Your task to perform on an android device: Open notification settings Image 0: 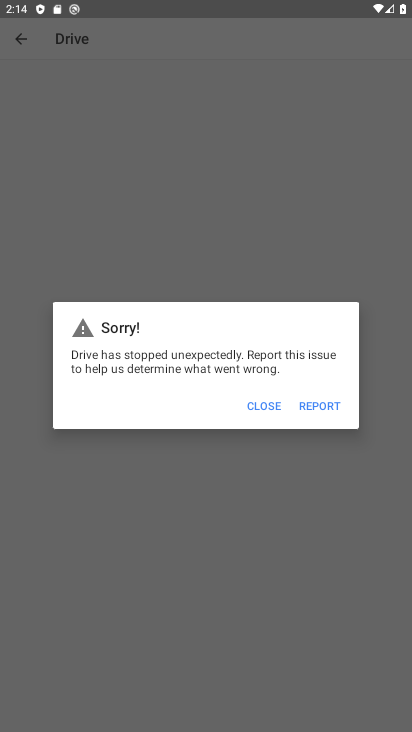
Step 0: press home button
Your task to perform on an android device: Open notification settings Image 1: 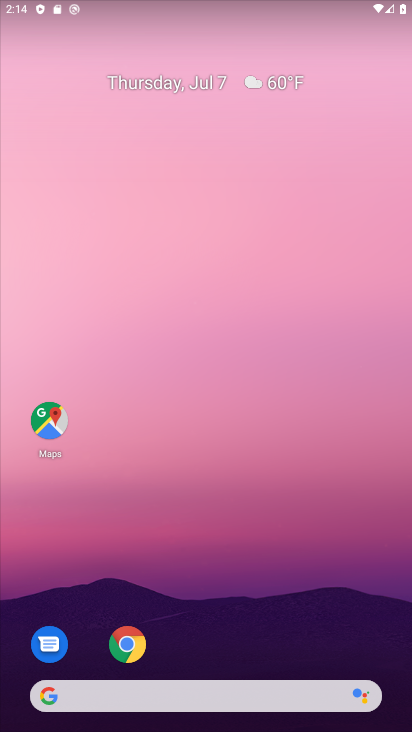
Step 1: drag from (192, 684) to (187, 280)
Your task to perform on an android device: Open notification settings Image 2: 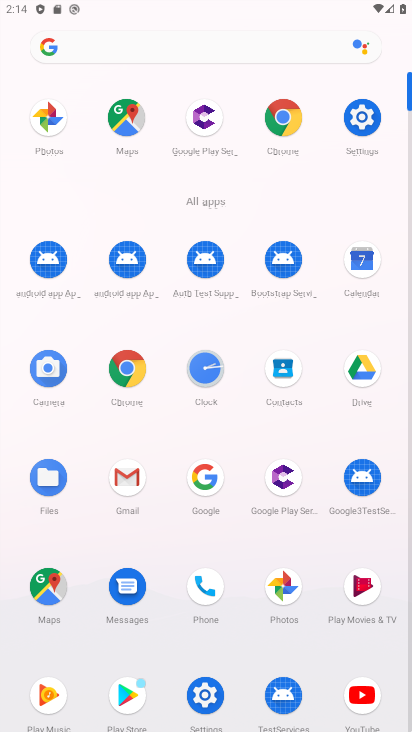
Step 2: click (358, 118)
Your task to perform on an android device: Open notification settings Image 3: 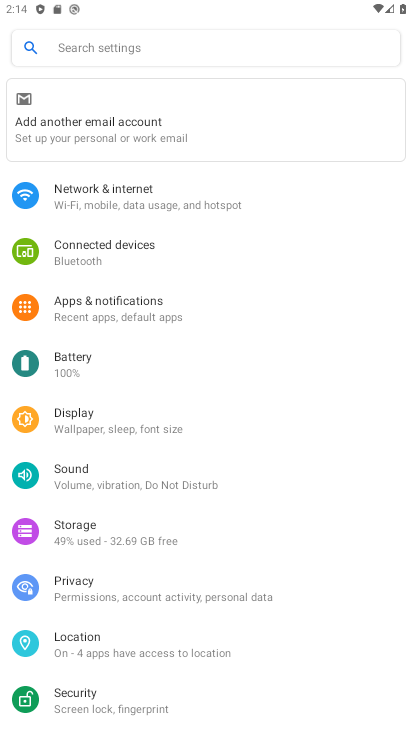
Step 3: click (122, 314)
Your task to perform on an android device: Open notification settings Image 4: 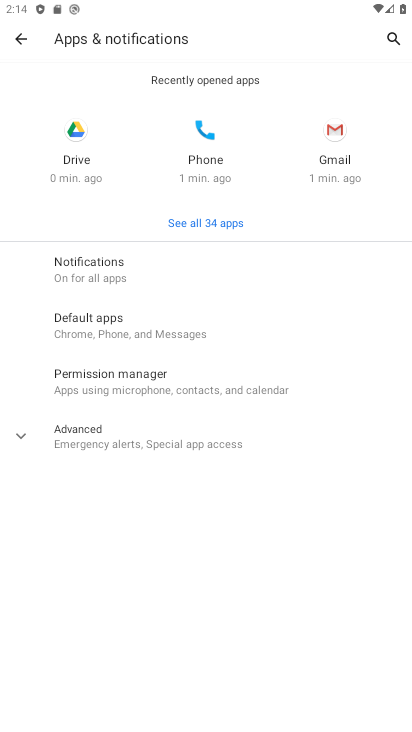
Step 4: click (374, 126)
Your task to perform on an android device: Open notification settings Image 5: 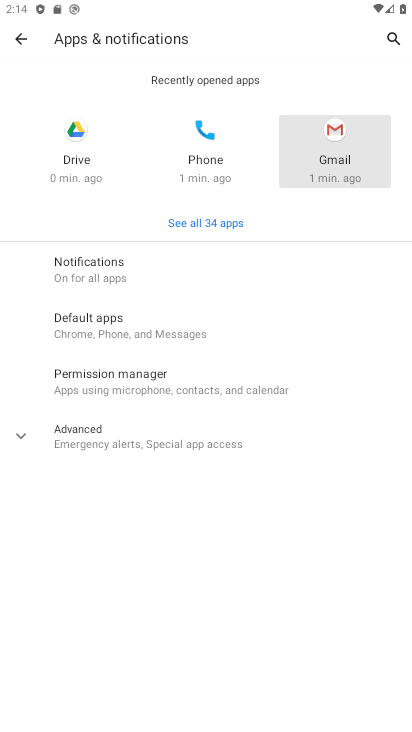
Step 5: task complete